Your task to perform on an android device: find photos in the google photos app Image 0: 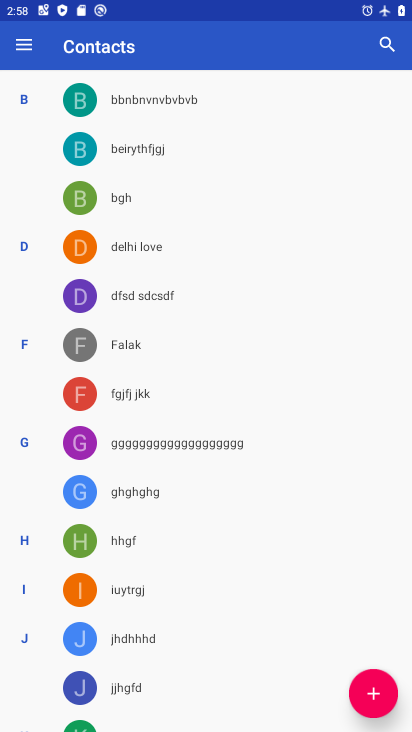
Step 0: task complete